Your task to perform on an android device: change text size in settings app Image 0: 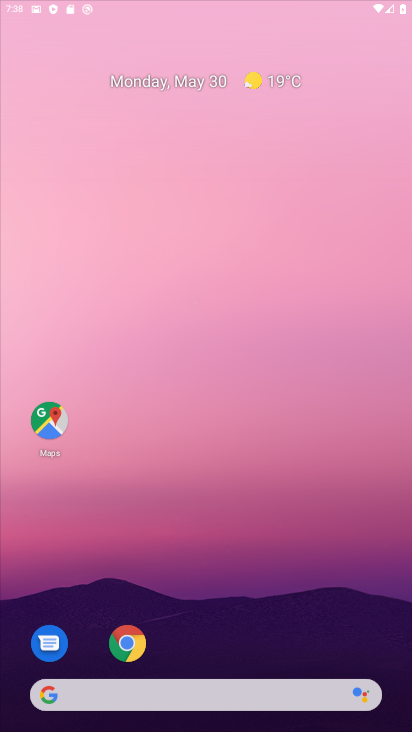
Step 0: press home button
Your task to perform on an android device: change text size in settings app Image 1: 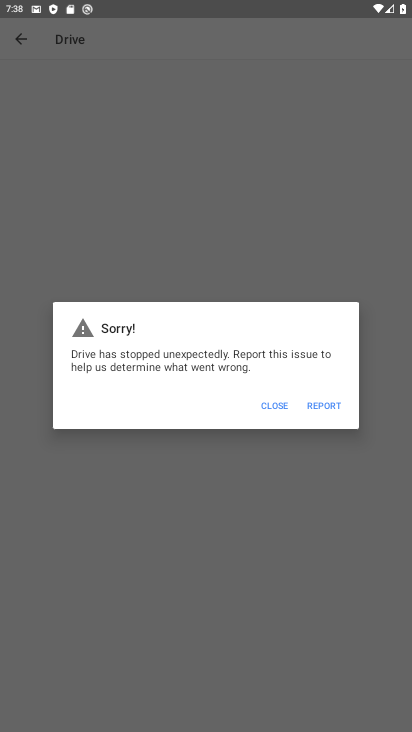
Step 1: press home button
Your task to perform on an android device: change text size in settings app Image 2: 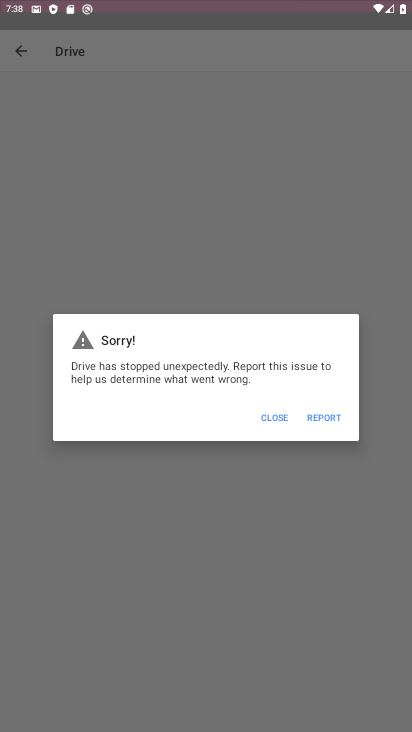
Step 2: click (334, 45)
Your task to perform on an android device: change text size in settings app Image 3: 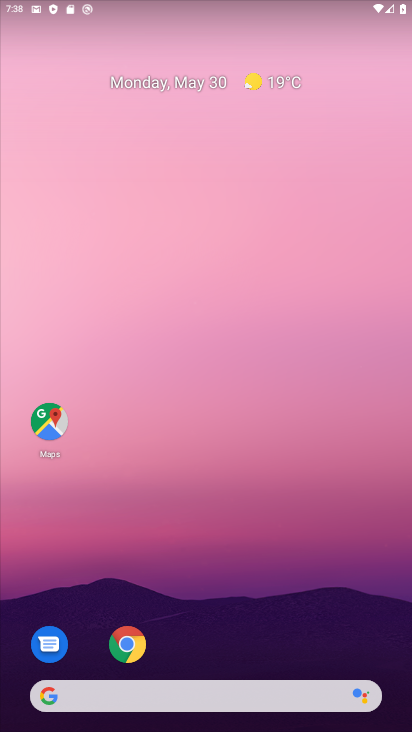
Step 3: drag from (200, 670) to (275, 89)
Your task to perform on an android device: change text size in settings app Image 4: 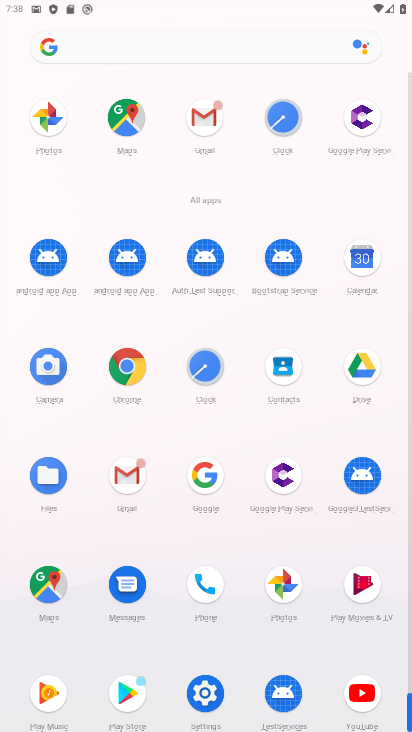
Step 4: click (214, 696)
Your task to perform on an android device: change text size in settings app Image 5: 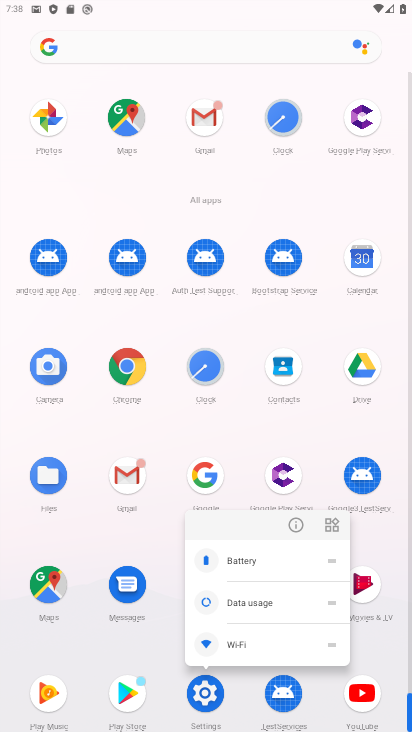
Step 5: click (301, 527)
Your task to perform on an android device: change text size in settings app Image 6: 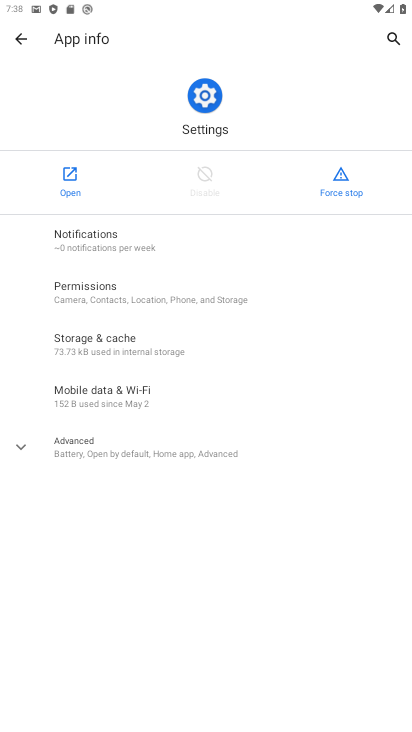
Step 6: click (61, 171)
Your task to perform on an android device: change text size in settings app Image 7: 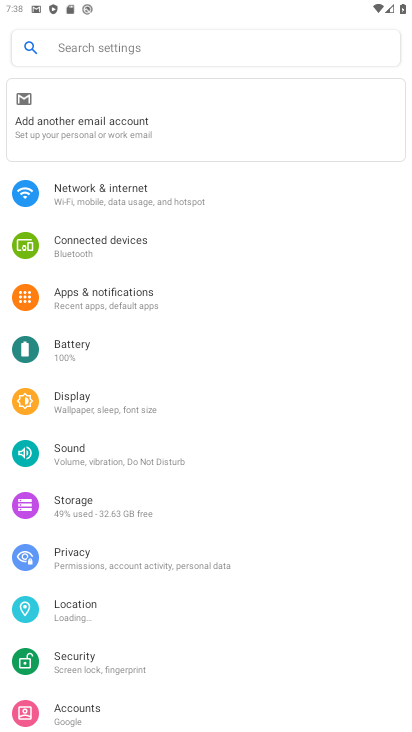
Step 7: click (138, 401)
Your task to perform on an android device: change text size in settings app Image 8: 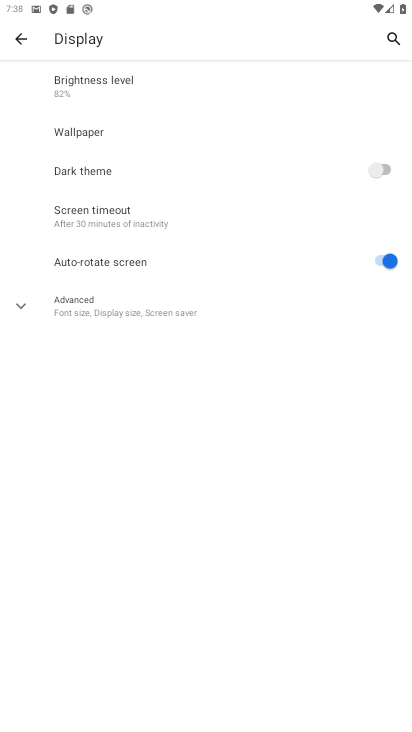
Step 8: click (75, 280)
Your task to perform on an android device: change text size in settings app Image 9: 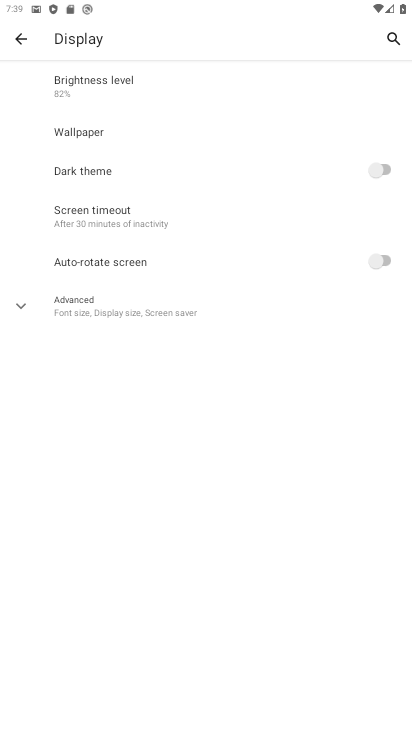
Step 9: click (75, 280)
Your task to perform on an android device: change text size in settings app Image 10: 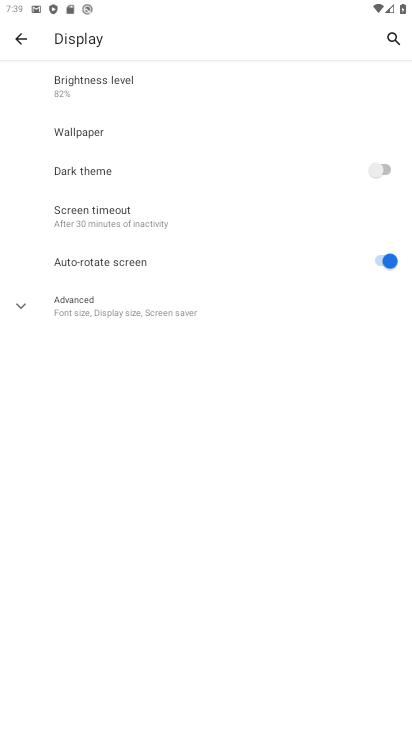
Step 10: click (92, 317)
Your task to perform on an android device: change text size in settings app Image 11: 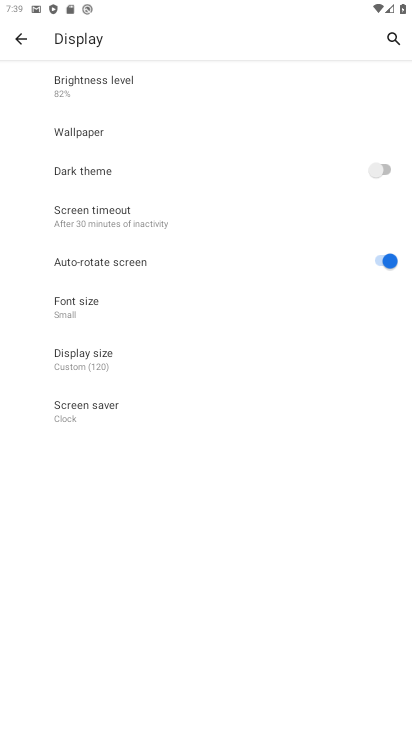
Step 11: click (103, 326)
Your task to perform on an android device: change text size in settings app Image 12: 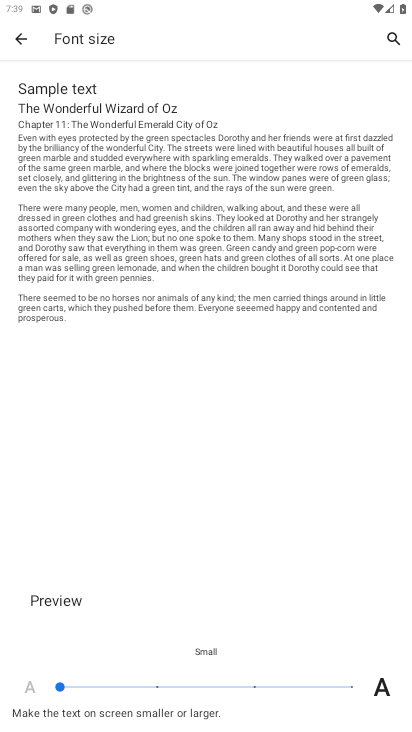
Step 12: click (129, 683)
Your task to perform on an android device: change text size in settings app Image 13: 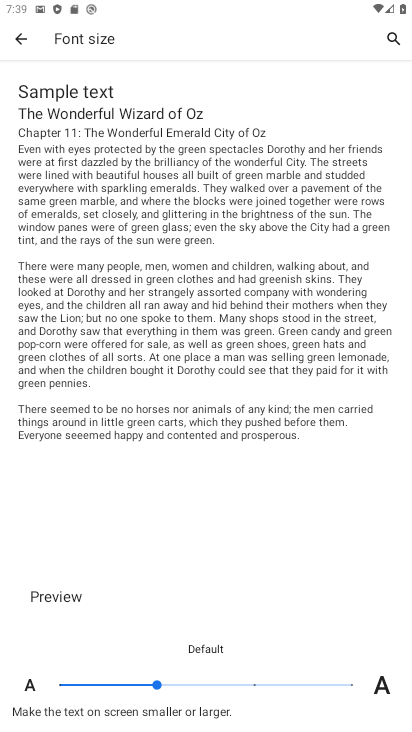
Step 13: task complete